Your task to perform on an android device: install app "Fetch Rewards" Image 0: 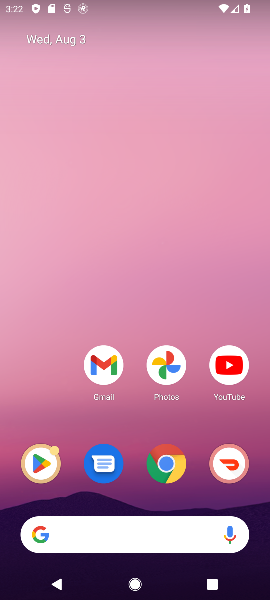
Step 0: drag from (143, 568) to (79, 188)
Your task to perform on an android device: install app "Fetch Rewards" Image 1: 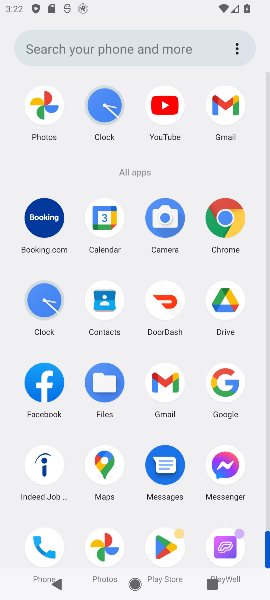
Step 1: drag from (155, 573) to (138, 324)
Your task to perform on an android device: install app "Fetch Rewards" Image 2: 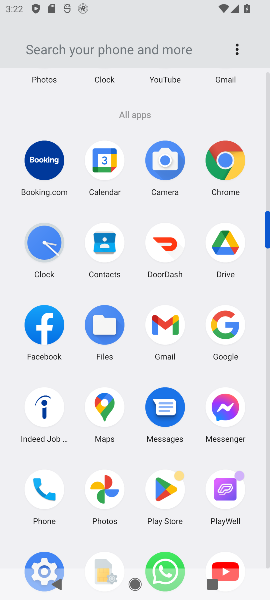
Step 2: click (153, 496)
Your task to perform on an android device: install app "Fetch Rewards" Image 3: 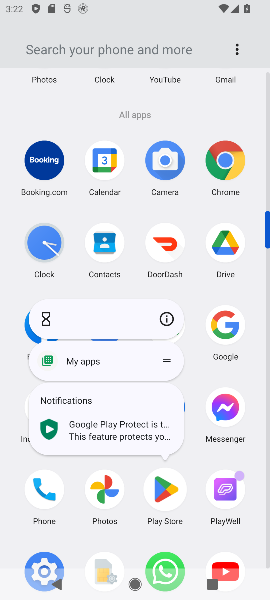
Step 3: click (153, 496)
Your task to perform on an android device: install app "Fetch Rewards" Image 4: 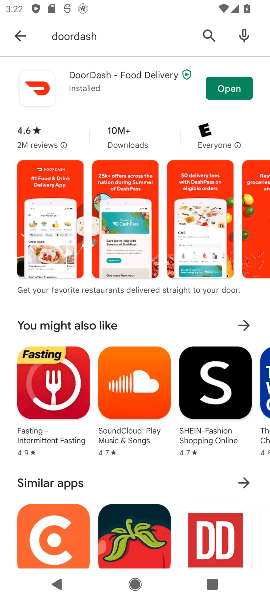
Step 4: click (153, 496)
Your task to perform on an android device: install app "Fetch Rewards" Image 5: 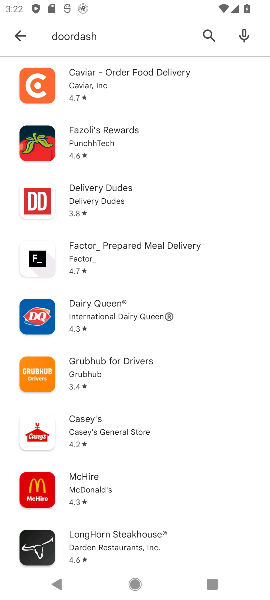
Step 5: click (20, 33)
Your task to perform on an android device: install app "Fetch Rewards" Image 6: 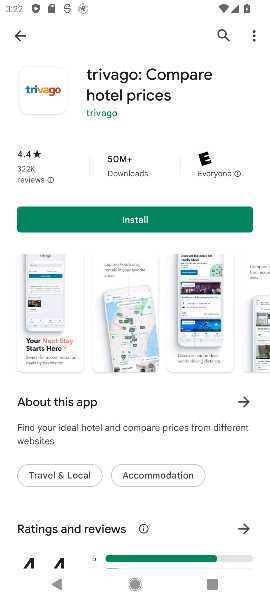
Step 6: click (14, 31)
Your task to perform on an android device: install app "Fetch Rewards" Image 7: 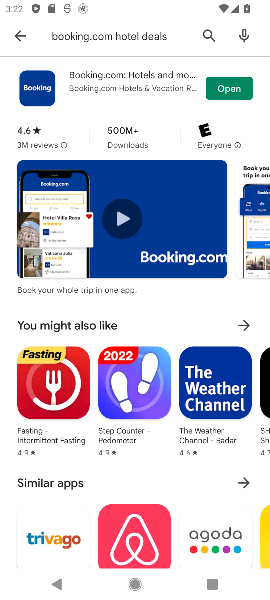
Step 7: click (206, 33)
Your task to perform on an android device: install app "Fetch Rewards" Image 8: 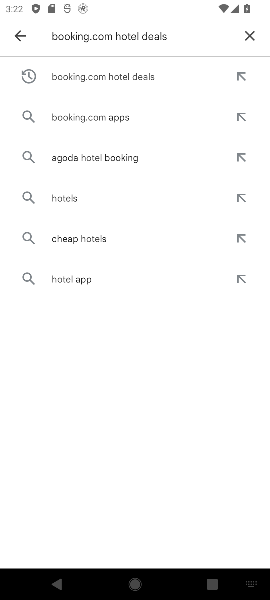
Step 8: click (246, 32)
Your task to perform on an android device: install app "Fetch Rewards" Image 9: 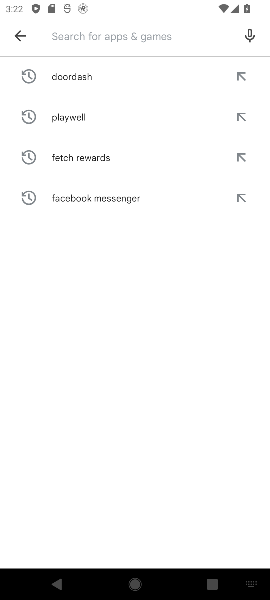
Step 9: type "fetch rewards"
Your task to perform on an android device: install app "Fetch Rewards" Image 10: 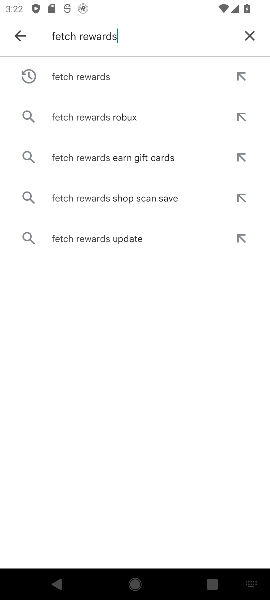
Step 10: click (83, 80)
Your task to perform on an android device: install app "Fetch Rewards" Image 11: 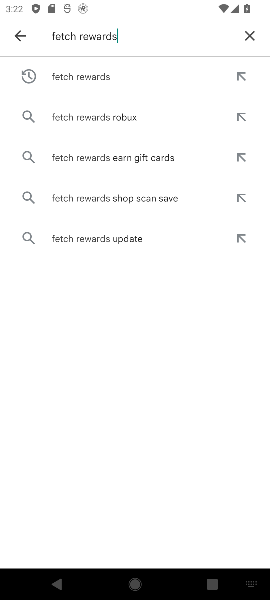
Step 11: click (81, 78)
Your task to perform on an android device: install app "Fetch Rewards" Image 12: 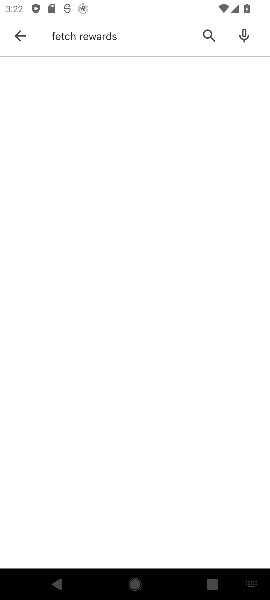
Step 12: click (82, 79)
Your task to perform on an android device: install app "Fetch Rewards" Image 13: 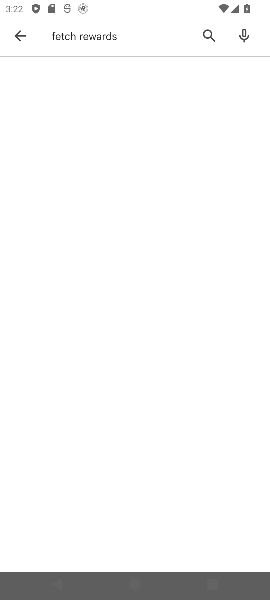
Step 13: click (82, 81)
Your task to perform on an android device: install app "Fetch Rewards" Image 14: 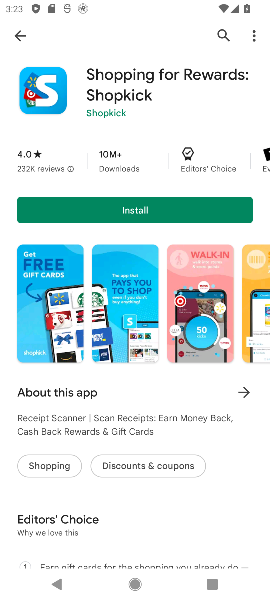
Step 14: click (19, 35)
Your task to perform on an android device: install app "Fetch Rewards" Image 15: 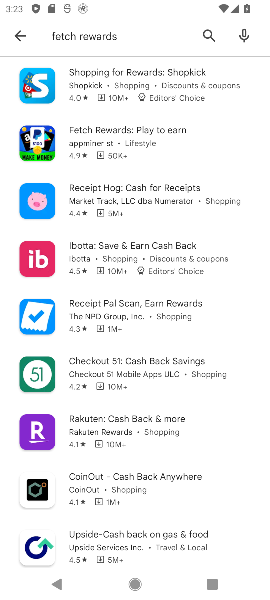
Step 15: click (112, 138)
Your task to perform on an android device: install app "Fetch Rewards" Image 16: 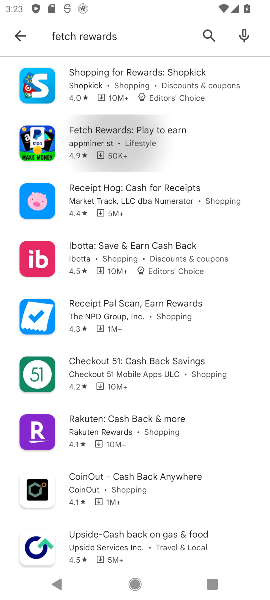
Step 16: click (109, 139)
Your task to perform on an android device: install app "Fetch Rewards" Image 17: 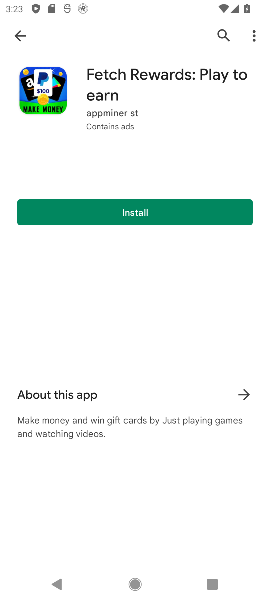
Step 17: click (109, 139)
Your task to perform on an android device: install app "Fetch Rewards" Image 18: 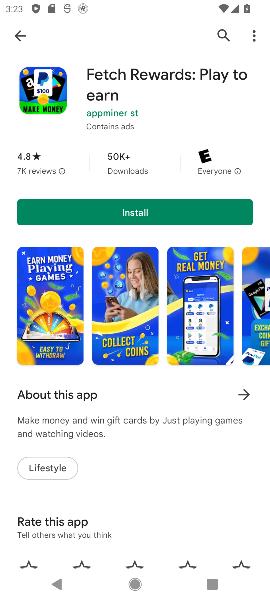
Step 18: click (159, 214)
Your task to perform on an android device: install app "Fetch Rewards" Image 19: 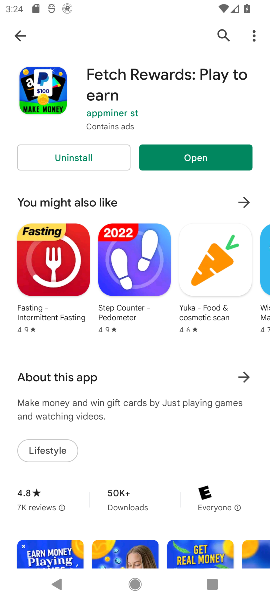
Step 19: click (207, 157)
Your task to perform on an android device: install app "Fetch Rewards" Image 20: 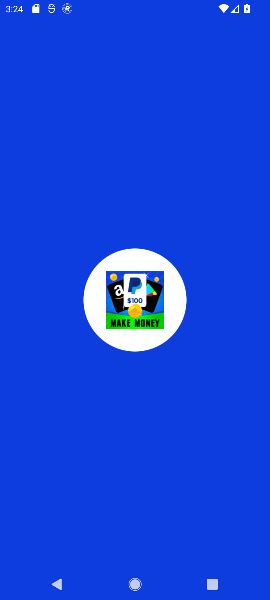
Step 20: task complete